Your task to perform on an android device: Open Google Image 0: 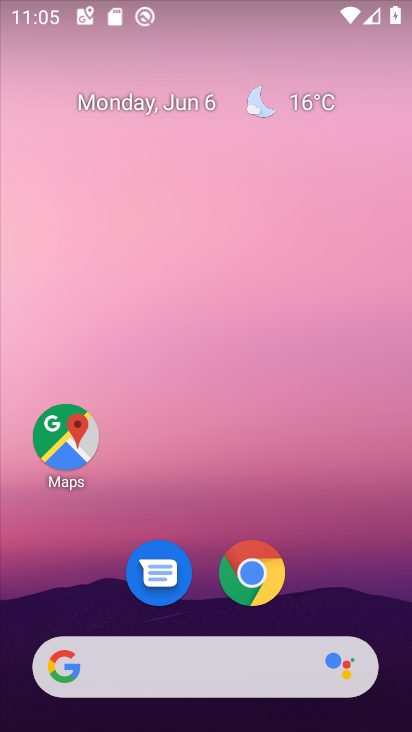
Step 0: click (58, 660)
Your task to perform on an android device: Open Google Image 1: 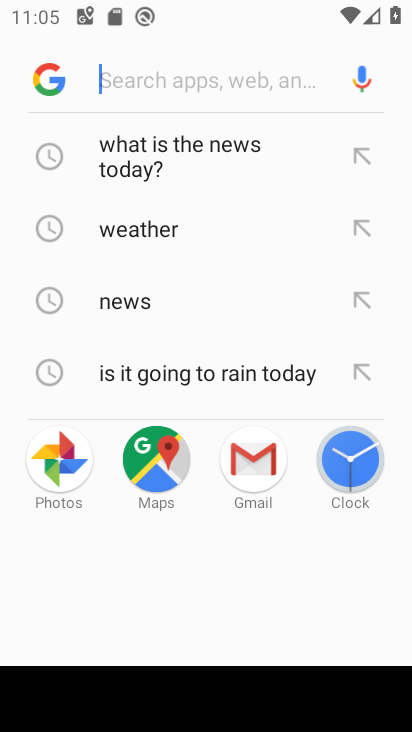
Step 1: click (69, 79)
Your task to perform on an android device: Open Google Image 2: 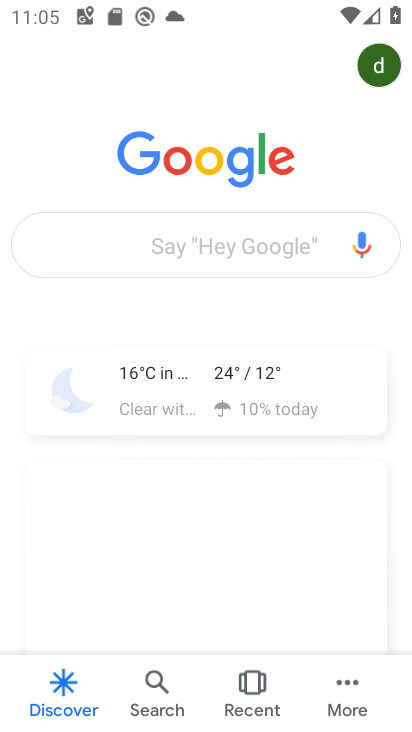
Step 2: task complete